Your task to perform on an android device: What's on my calendar today? Image 0: 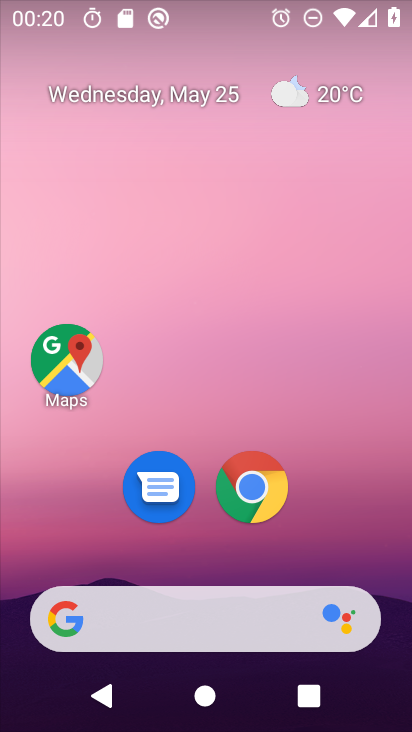
Step 0: drag from (352, 549) to (321, 7)
Your task to perform on an android device: What's on my calendar today? Image 1: 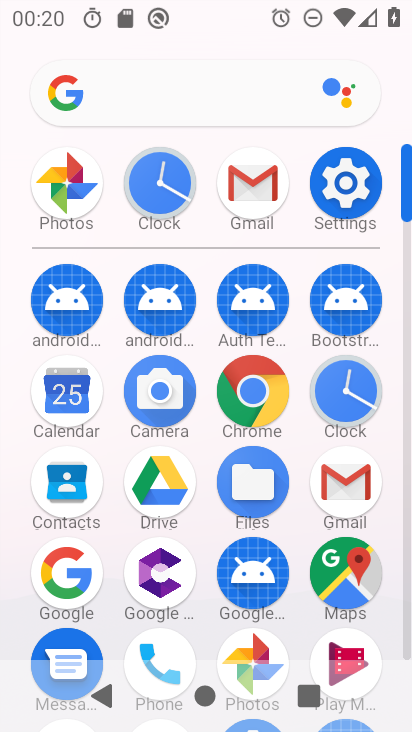
Step 1: click (48, 402)
Your task to perform on an android device: What's on my calendar today? Image 2: 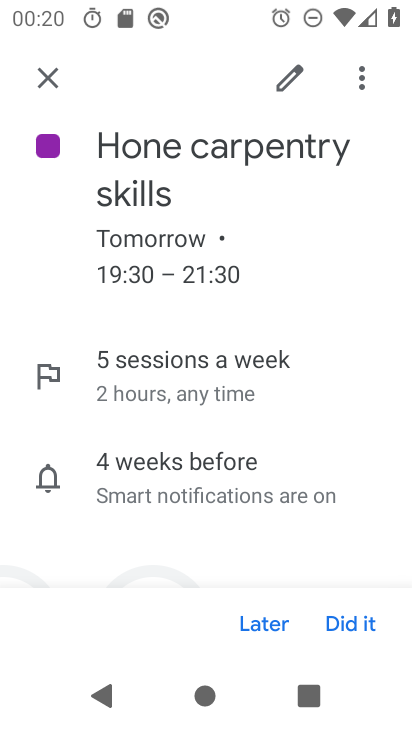
Step 2: click (46, 82)
Your task to perform on an android device: What's on my calendar today? Image 3: 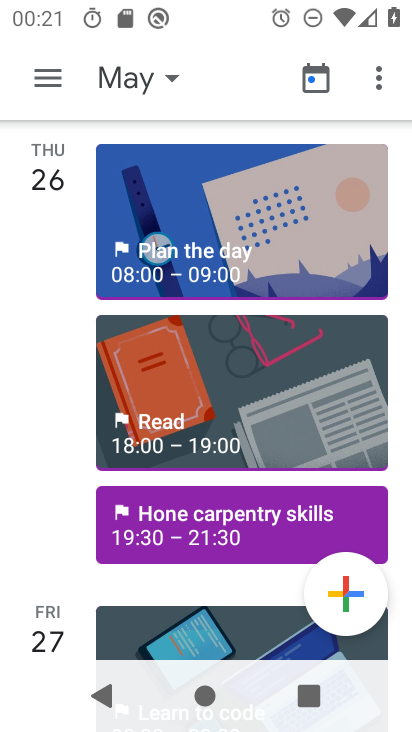
Step 3: drag from (205, 261) to (223, 465)
Your task to perform on an android device: What's on my calendar today? Image 4: 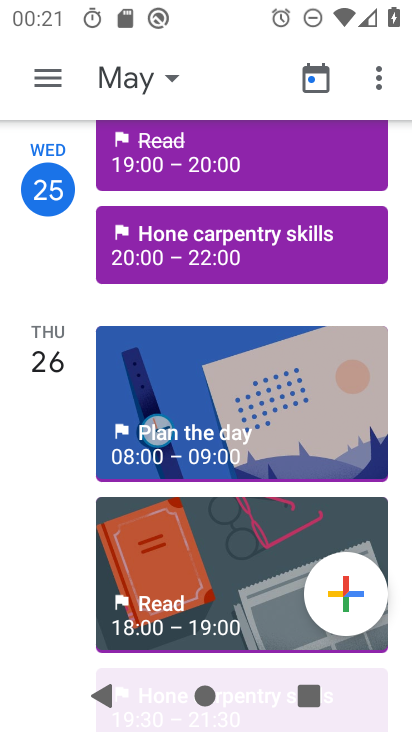
Step 4: drag from (197, 289) to (210, 424)
Your task to perform on an android device: What's on my calendar today? Image 5: 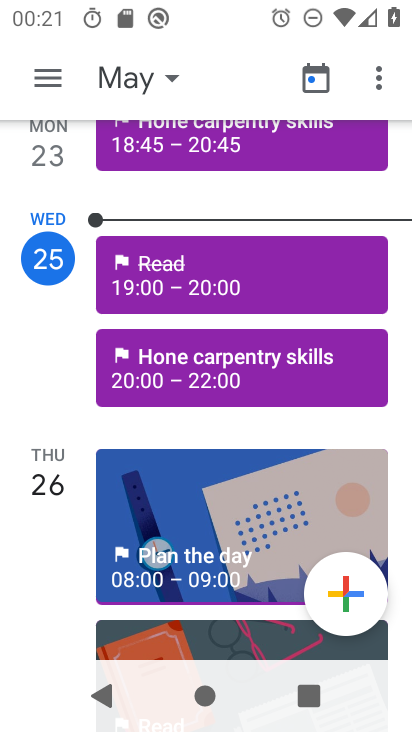
Step 5: click (223, 284)
Your task to perform on an android device: What's on my calendar today? Image 6: 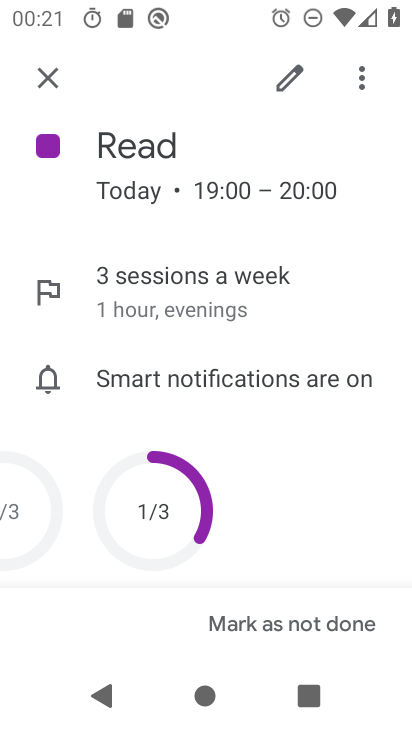
Step 6: task complete